Your task to perform on an android device: Open Android settings Image 0: 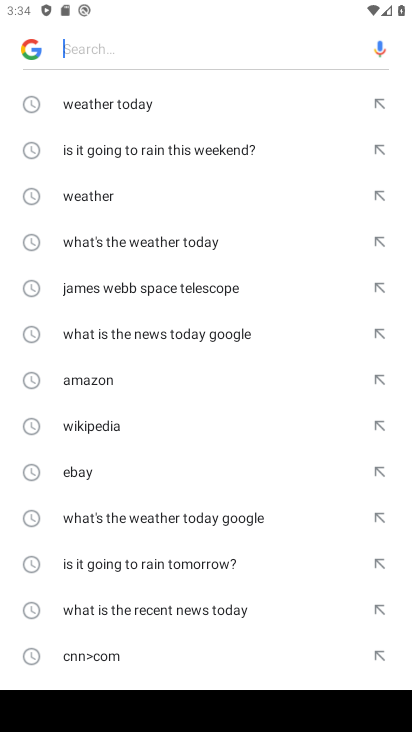
Step 0: press home button
Your task to perform on an android device: Open Android settings Image 1: 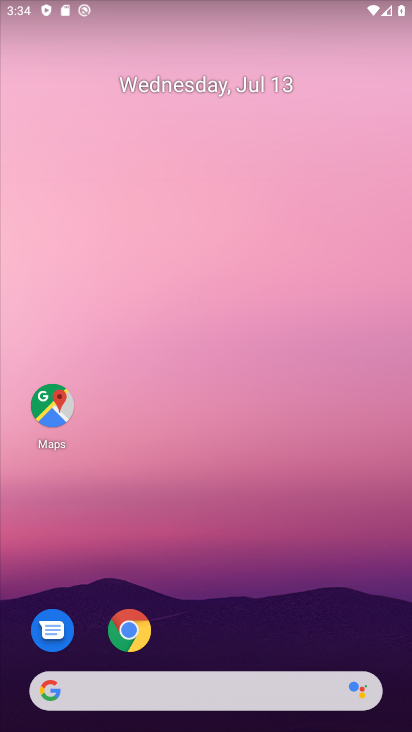
Step 1: drag from (231, 567) to (231, 136)
Your task to perform on an android device: Open Android settings Image 2: 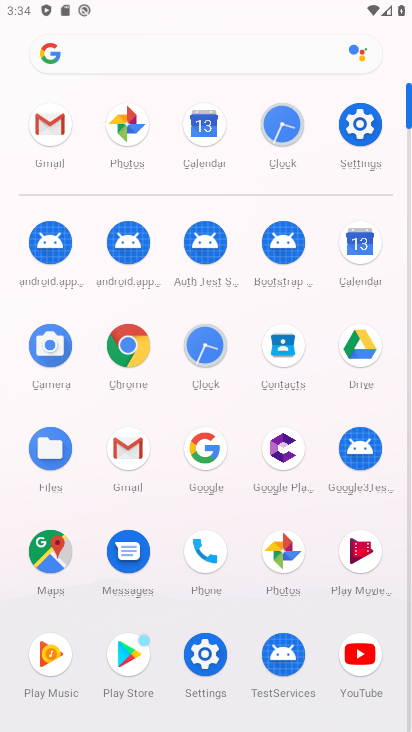
Step 2: click (361, 127)
Your task to perform on an android device: Open Android settings Image 3: 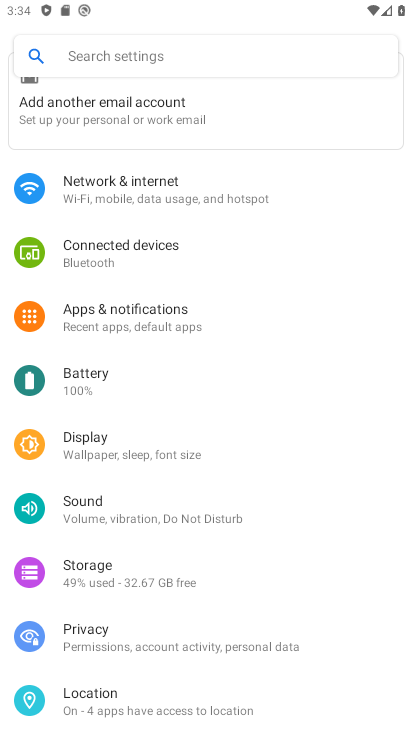
Step 3: task complete